Your task to perform on an android device: See recent photos Image 0: 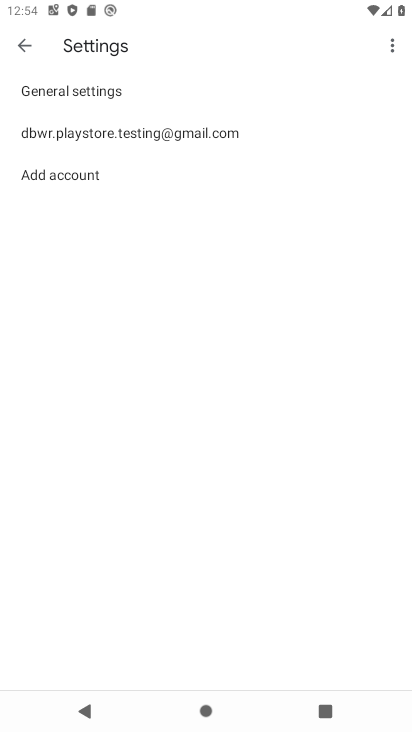
Step 0: press home button
Your task to perform on an android device: See recent photos Image 1: 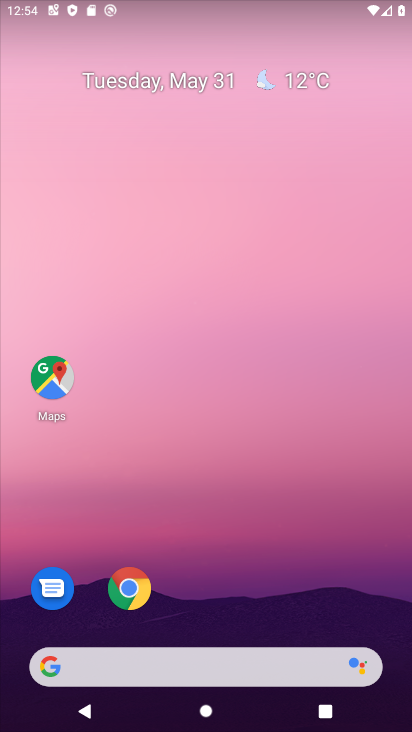
Step 1: drag from (191, 609) to (207, 179)
Your task to perform on an android device: See recent photos Image 2: 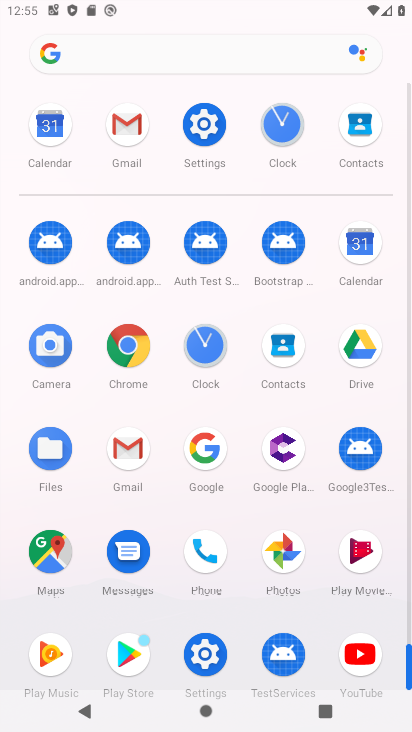
Step 2: click (288, 570)
Your task to perform on an android device: See recent photos Image 3: 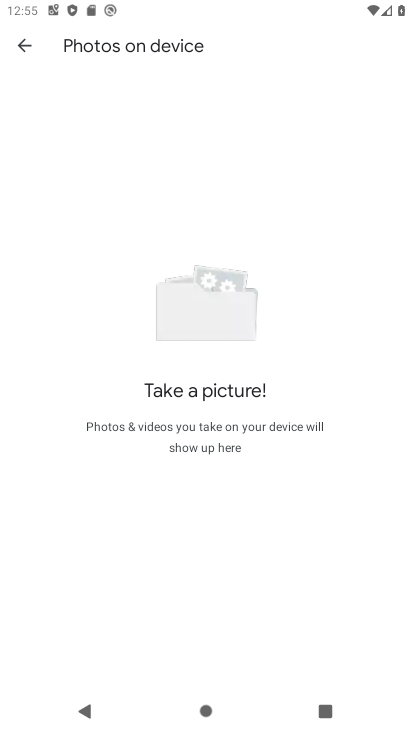
Step 3: click (21, 52)
Your task to perform on an android device: See recent photos Image 4: 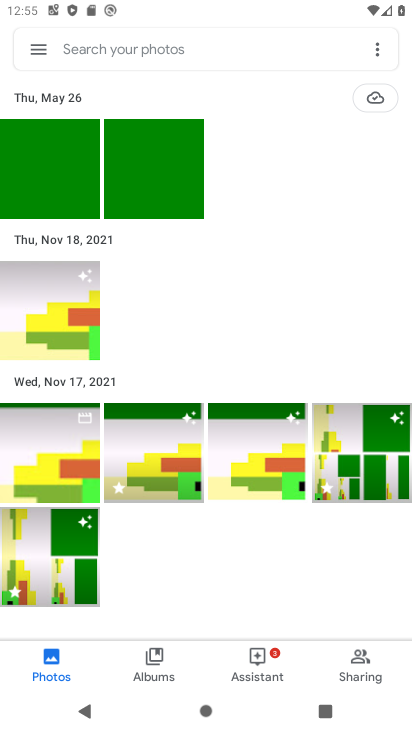
Step 4: click (135, 663)
Your task to perform on an android device: See recent photos Image 5: 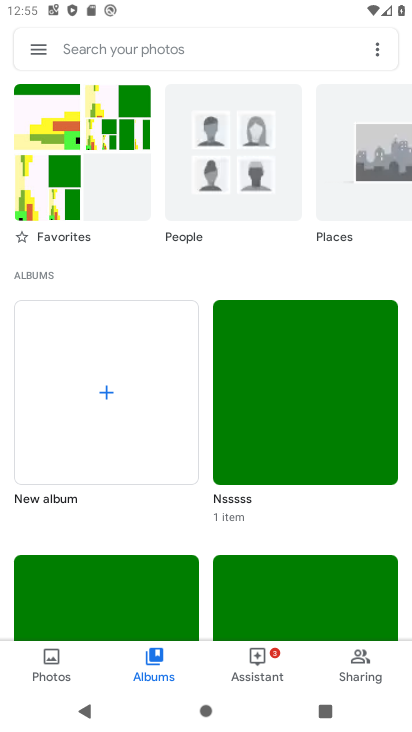
Step 5: task complete